Your task to perform on an android device: open wifi settings Image 0: 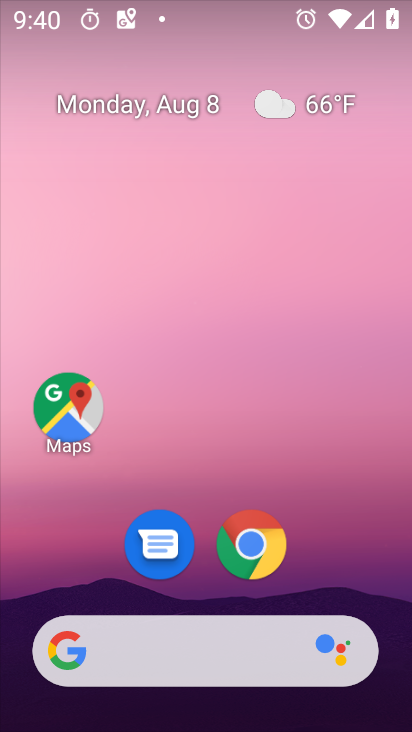
Step 0: press home button
Your task to perform on an android device: open wifi settings Image 1: 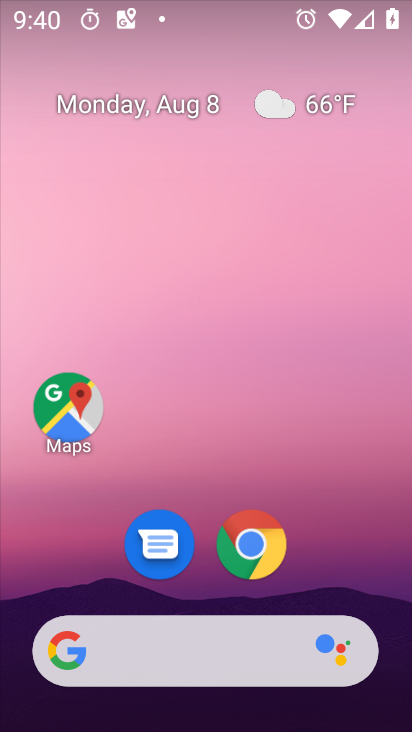
Step 1: drag from (315, 585) to (335, 27)
Your task to perform on an android device: open wifi settings Image 2: 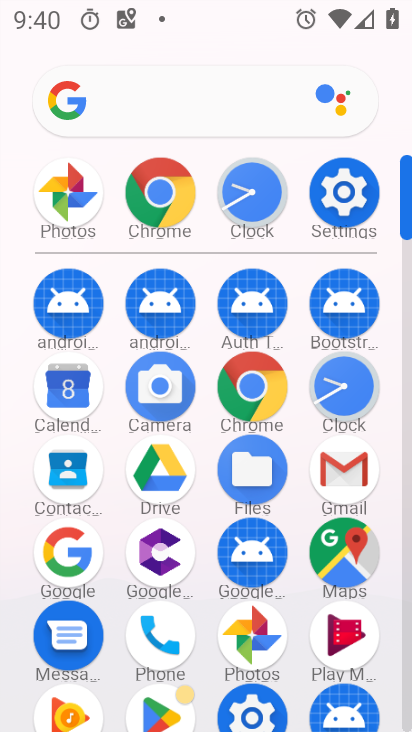
Step 2: click (340, 187)
Your task to perform on an android device: open wifi settings Image 3: 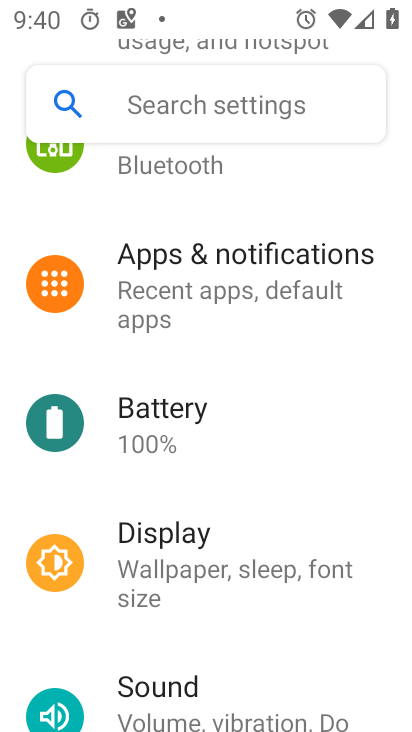
Step 3: drag from (221, 200) to (181, 711)
Your task to perform on an android device: open wifi settings Image 4: 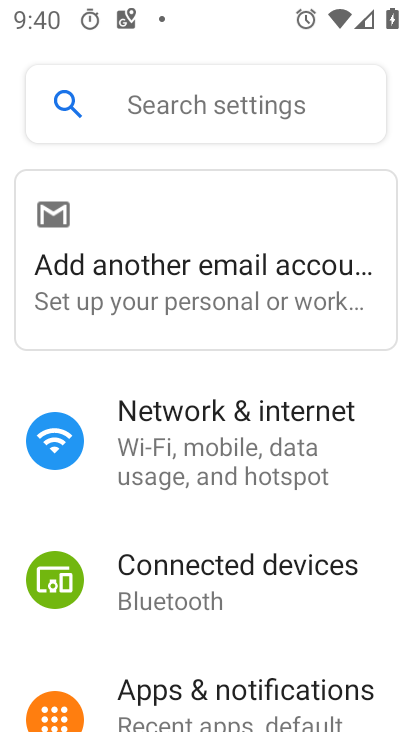
Step 4: click (100, 434)
Your task to perform on an android device: open wifi settings Image 5: 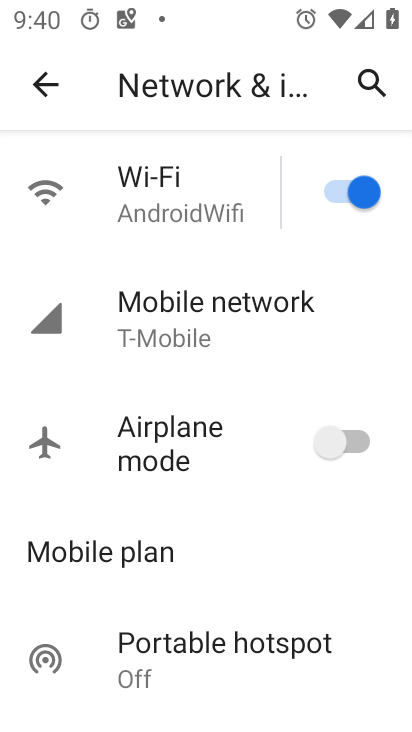
Step 5: click (144, 186)
Your task to perform on an android device: open wifi settings Image 6: 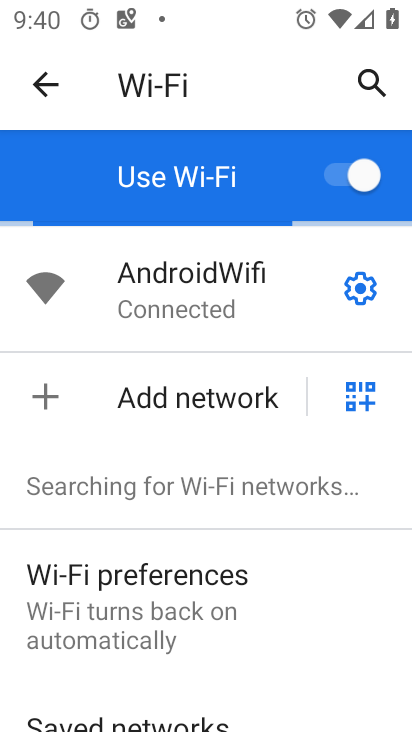
Step 6: task complete